Your task to perform on an android device: Open the web browser Image 0: 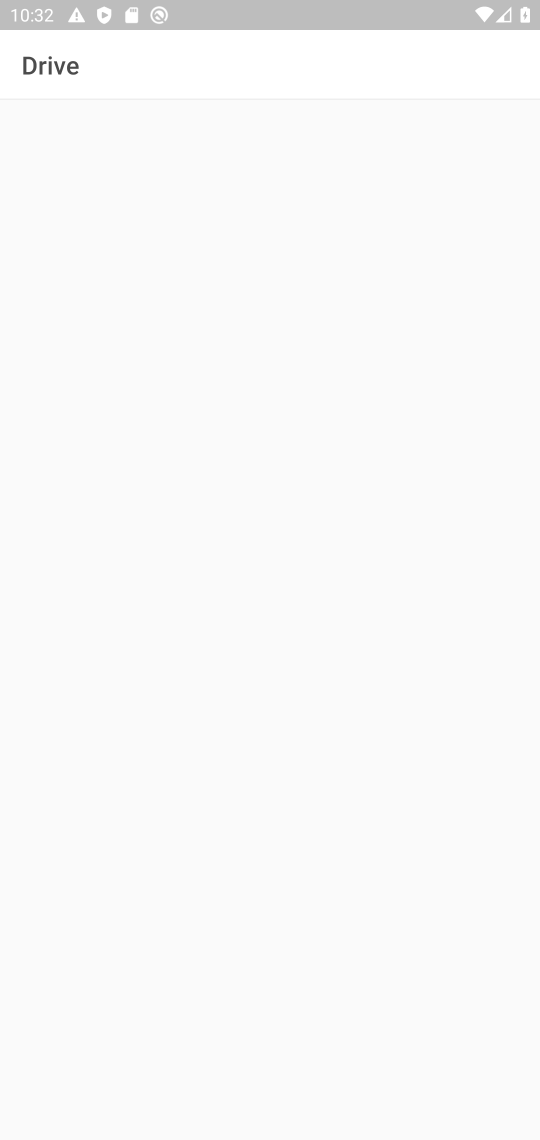
Step 0: press home button
Your task to perform on an android device: Open the web browser Image 1: 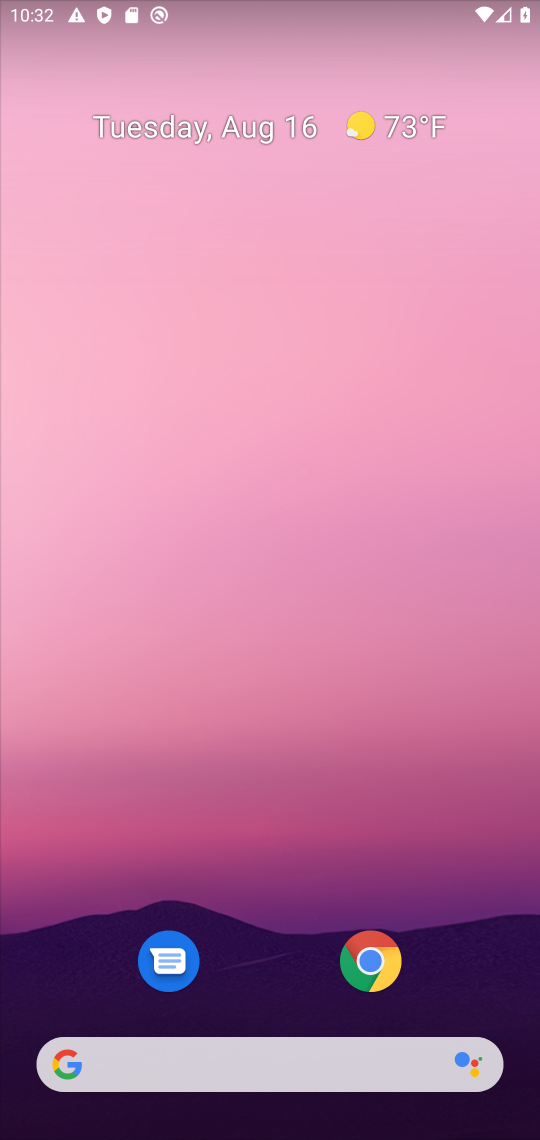
Step 1: click (397, 958)
Your task to perform on an android device: Open the web browser Image 2: 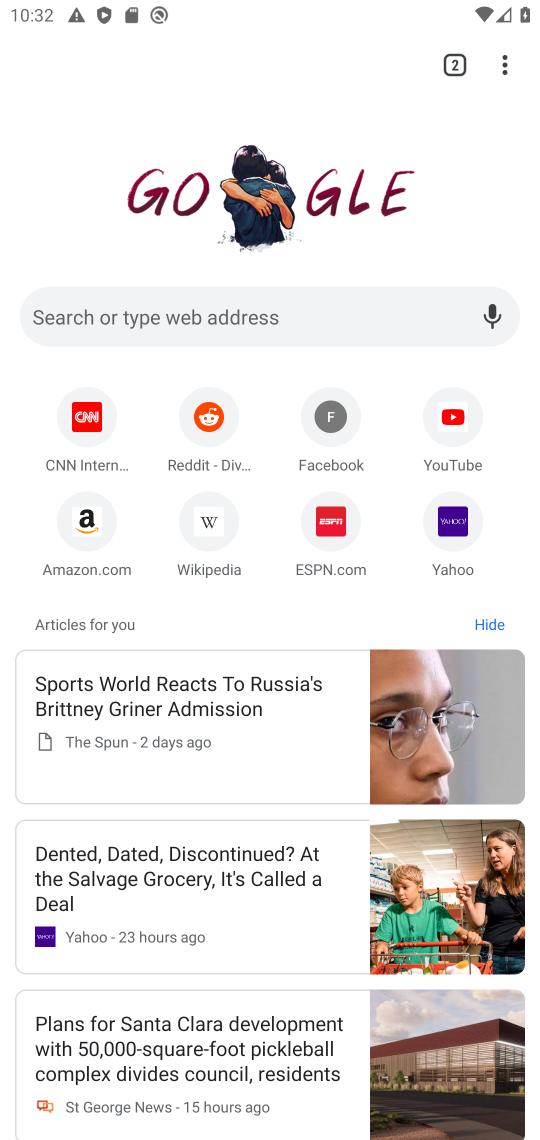
Step 2: task complete